Your task to perform on an android device: turn off location history Image 0: 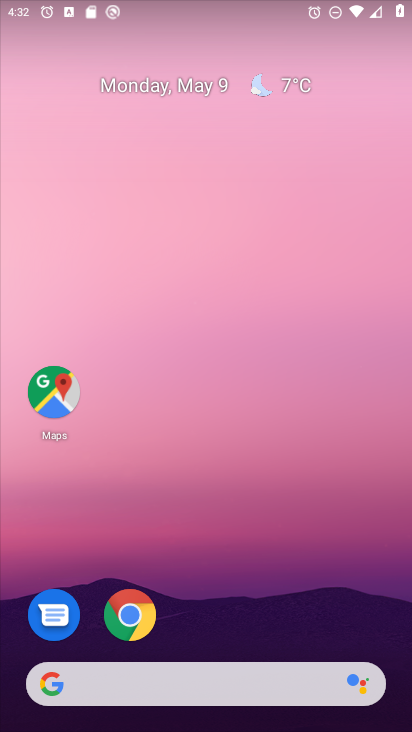
Step 0: drag from (368, 631) to (284, 171)
Your task to perform on an android device: turn off location history Image 1: 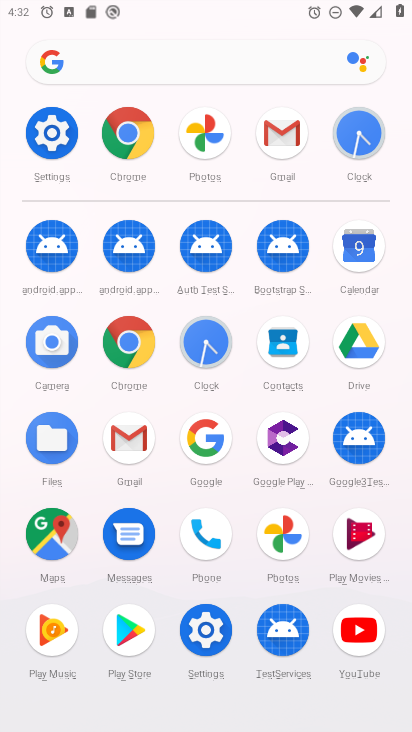
Step 1: click (51, 532)
Your task to perform on an android device: turn off location history Image 2: 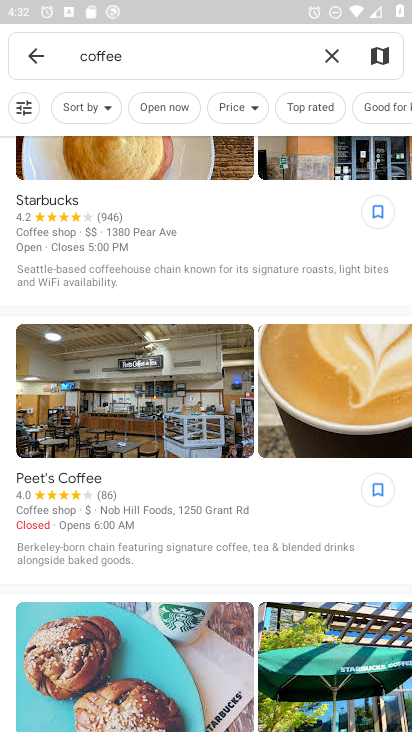
Step 2: click (327, 54)
Your task to perform on an android device: turn off location history Image 3: 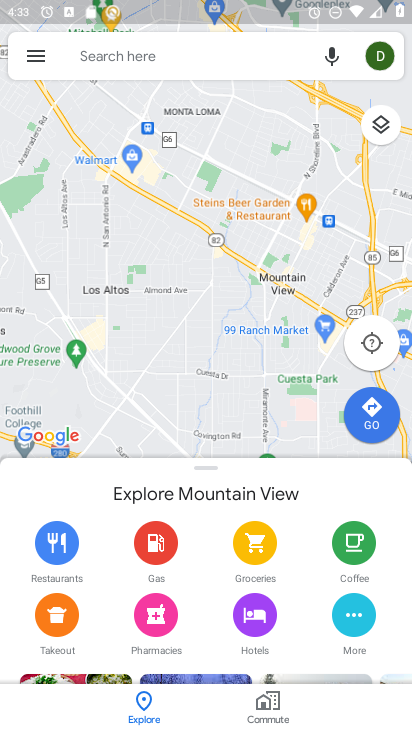
Step 3: click (33, 55)
Your task to perform on an android device: turn off location history Image 4: 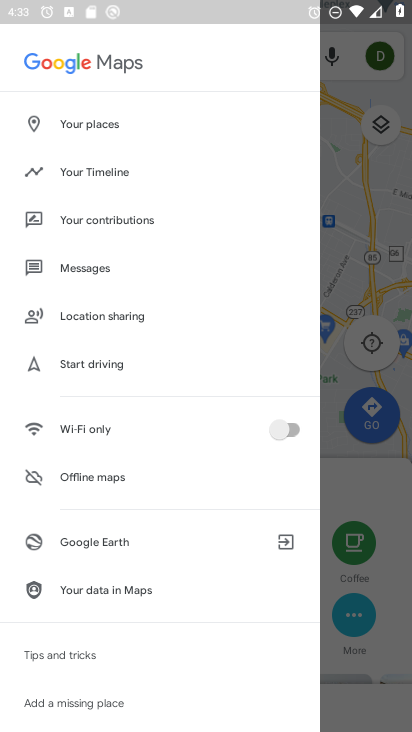
Step 4: drag from (167, 631) to (181, 262)
Your task to perform on an android device: turn off location history Image 5: 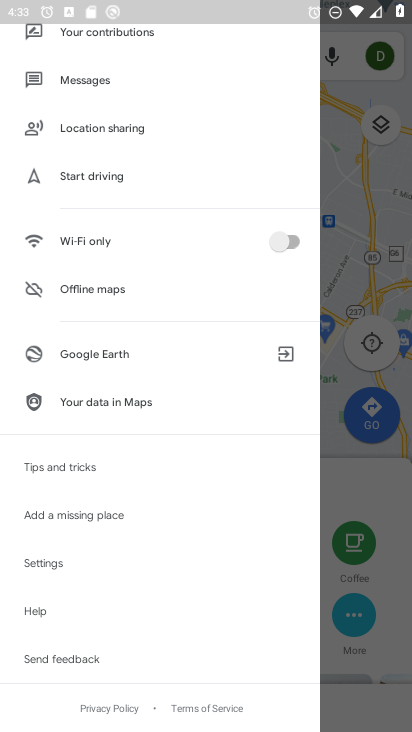
Step 5: click (41, 561)
Your task to perform on an android device: turn off location history Image 6: 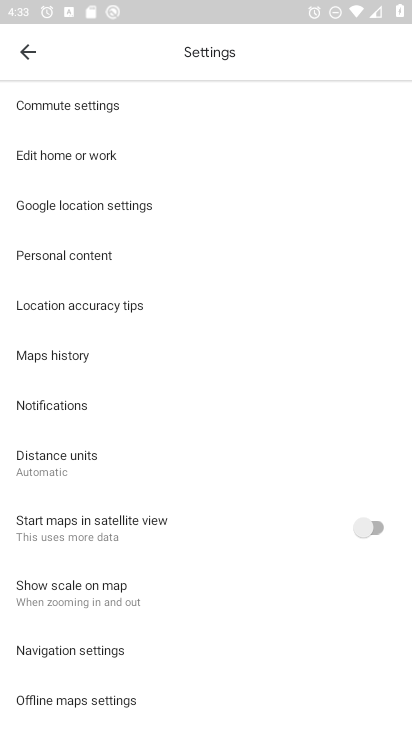
Step 6: click (44, 250)
Your task to perform on an android device: turn off location history Image 7: 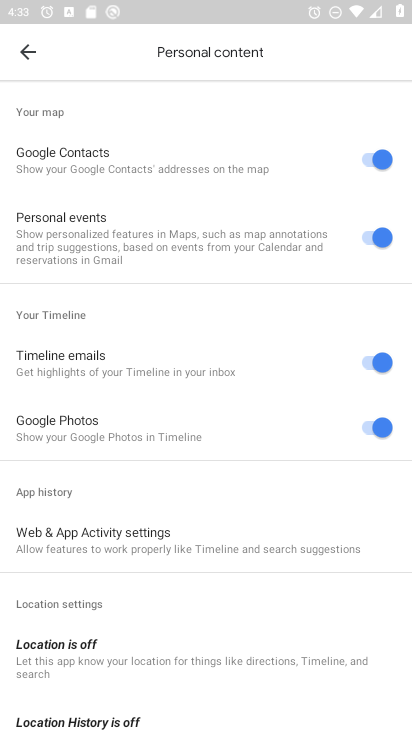
Step 7: drag from (165, 648) to (177, 300)
Your task to perform on an android device: turn off location history Image 8: 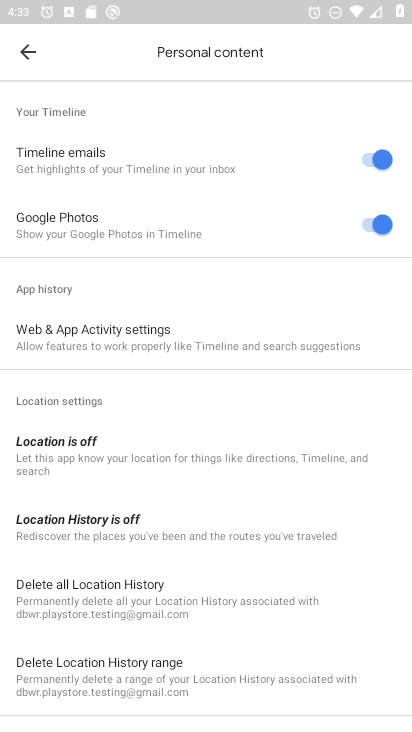
Step 8: click (63, 518)
Your task to perform on an android device: turn off location history Image 9: 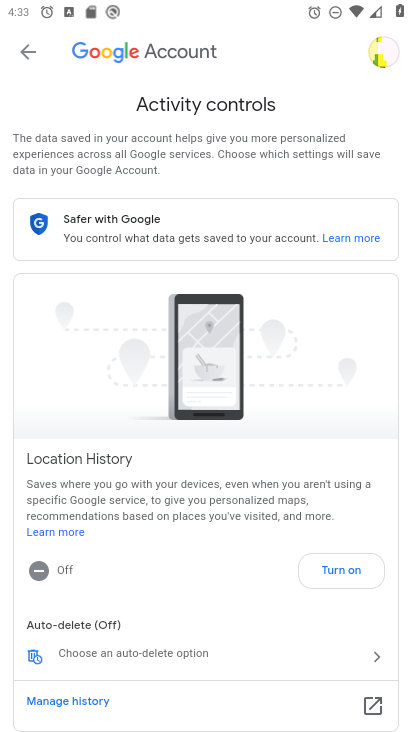
Step 9: task complete